Your task to perform on an android device: When is my next appointment? Image 0: 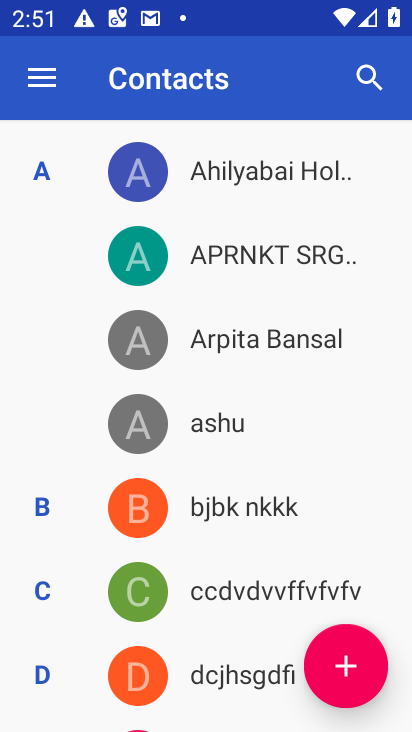
Step 0: press home button
Your task to perform on an android device: When is my next appointment? Image 1: 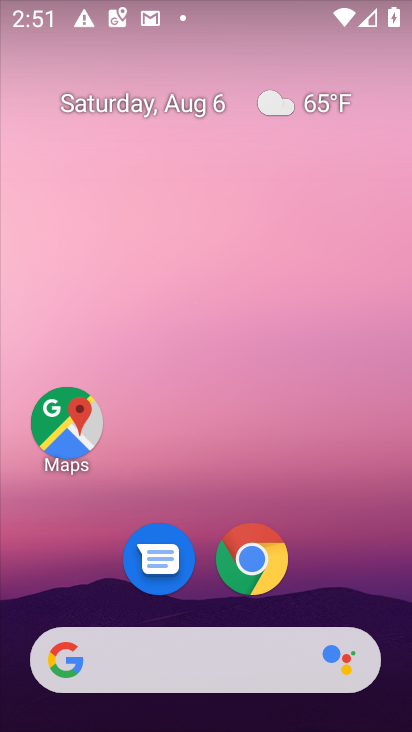
Step 1: drag from (200, 499) to (201, 209)
Your task to perform on an android device: When is my next appointment? Image 2: 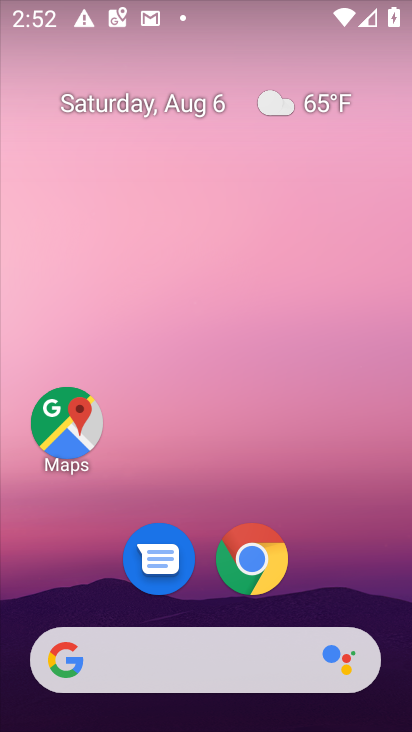
Step 2: drag from (211, 516) to (215, 121)
Your task to perform on an android device: When is my next appointment? Image 3: 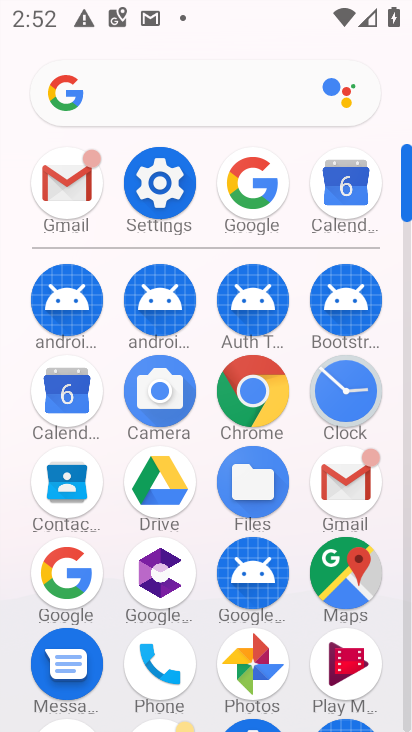
Step 3: click (339, 203)
Your task to perform on an android device: When is my next appointment? Image 4: 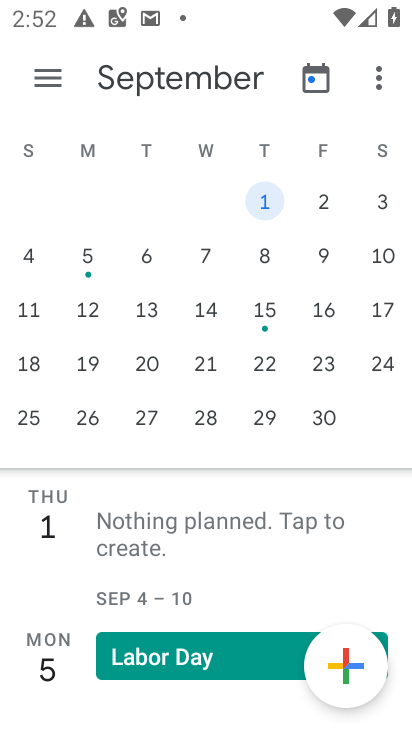
Step 4: click (320, 204)
Your task to perform on an android device: When is my next appointment? Image 5: 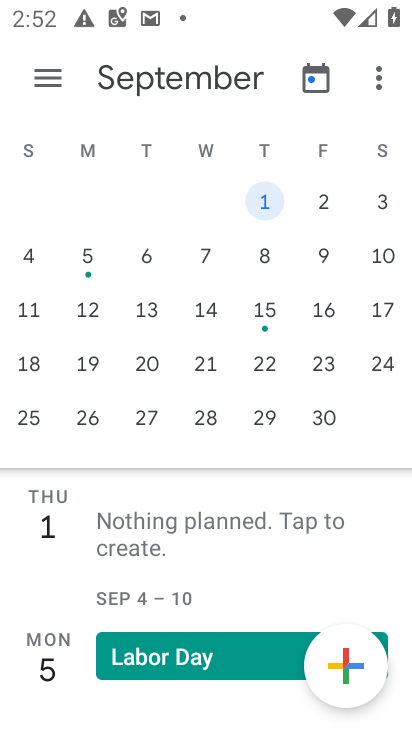
Step 5: click (355, 199)
Your task to perform on an android device: When is my next appointment? Image 6: 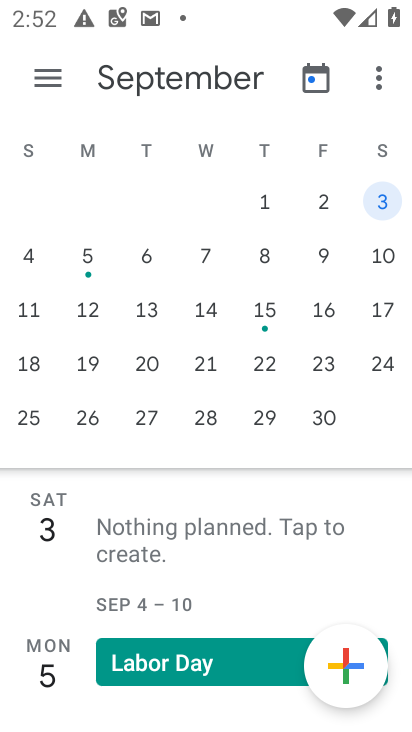
Step 6: click (27, 251)
Your task to perform on an android device: When is my next appointment? Image 7: 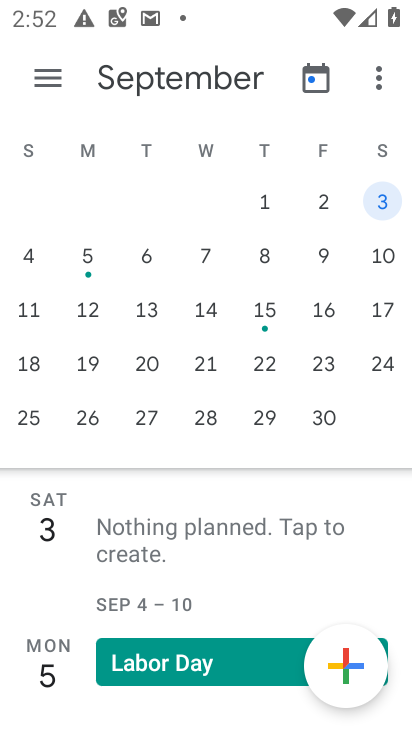
Step 7: click (82, 250)
Your task to perform on an android device: When is my next appointment? Image 8: 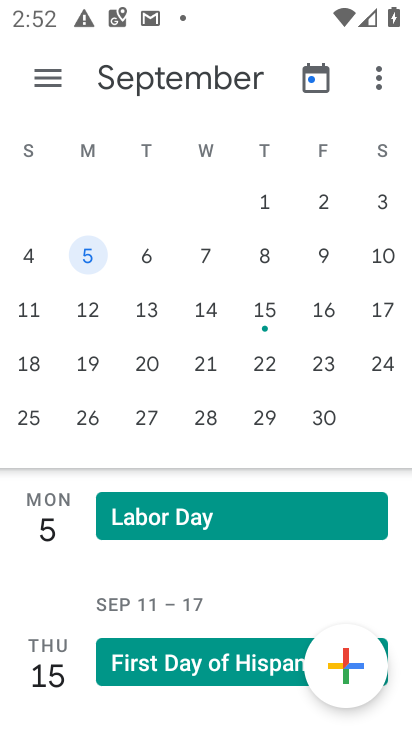
Step 8: task complete